Your task to perform on an android device: turn on the 12-hour format for clock Image 0: 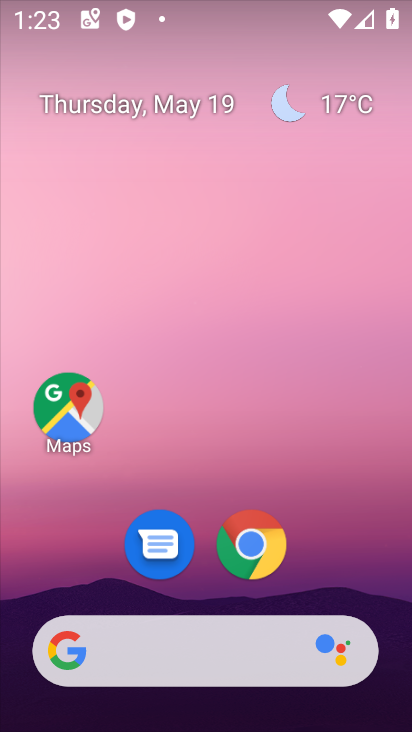
Step 0: drag from (236, 723) to (231, 137)
Your task to perform on an android device: turn on the 12-hour format for clock Image 1: 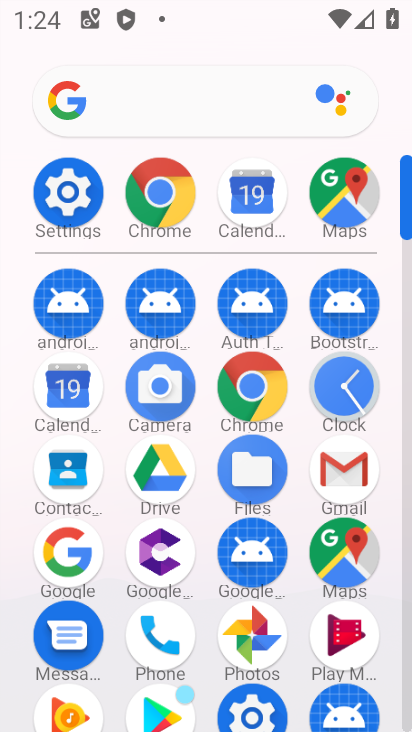
Step 1: click (342, 387)
Your task to perform on an android device: turn on the 12-hour format for clock Image 2: 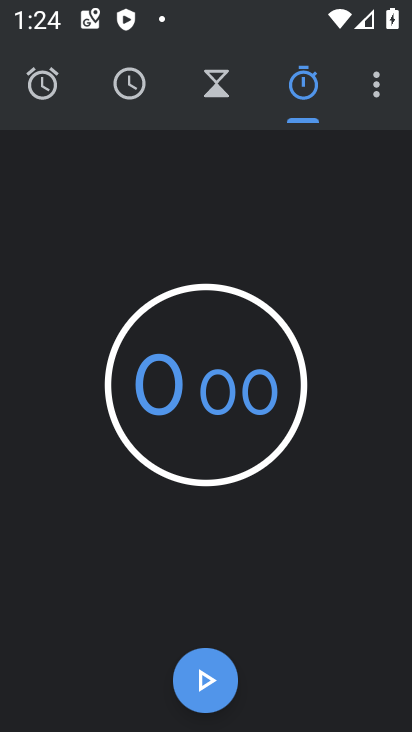
Step 2: click (378, 96)
Your task to perform on an android device: turn on the 12-hour format for clock Image 3: 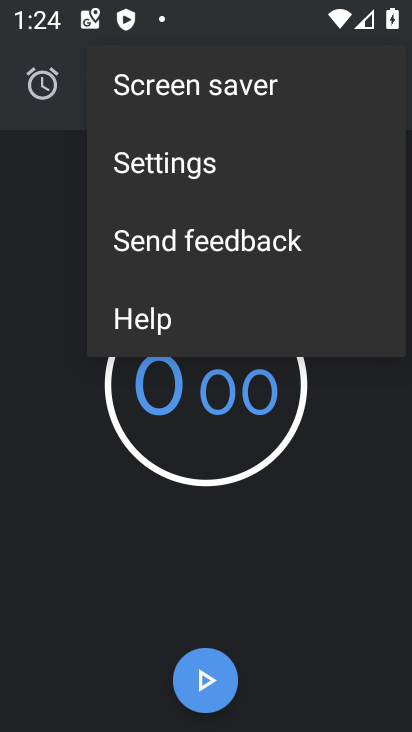
Step 3: click (162, 166)
Your task to perform on an android device: turn on the 12-hour format for clock Image 4: 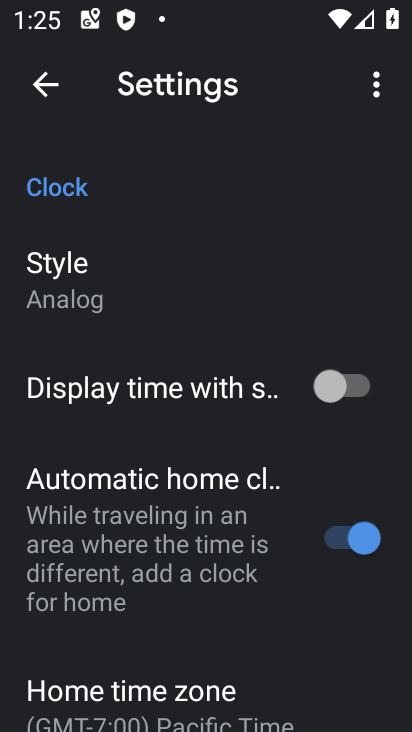
Step 4: drag from (115, 680) to (176, 266)
Your task to perform on an android device: turn on the 12-hour format for clock Image 5: 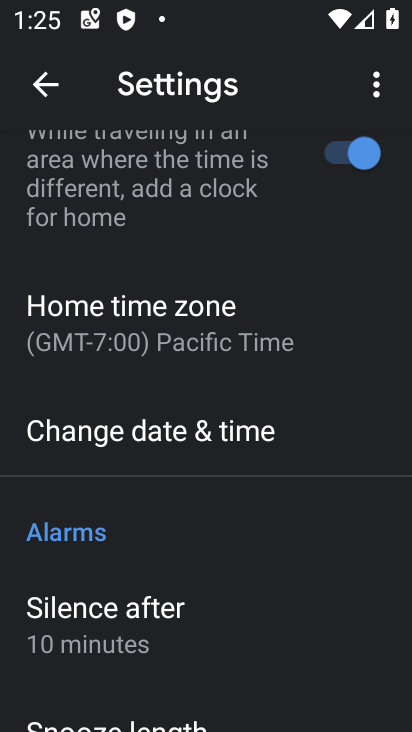
Step 5: click (117, 435)
Your task to perform on an android device: turn on the 12-hour format for clock Image 6: 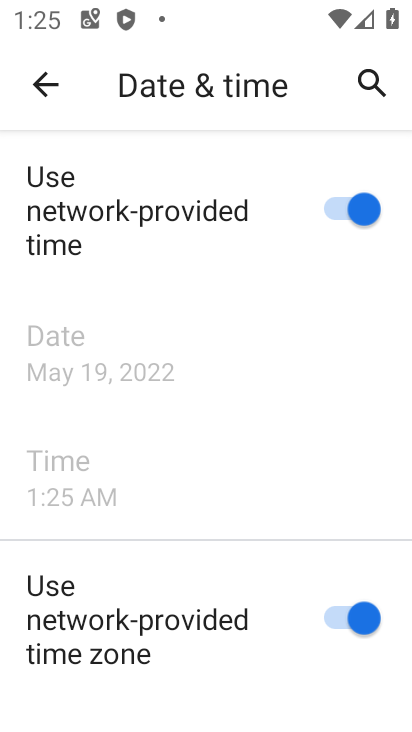
Step 6: task complete